Your task to perform on an android device: turn on javascript in the chrome app Image 0: 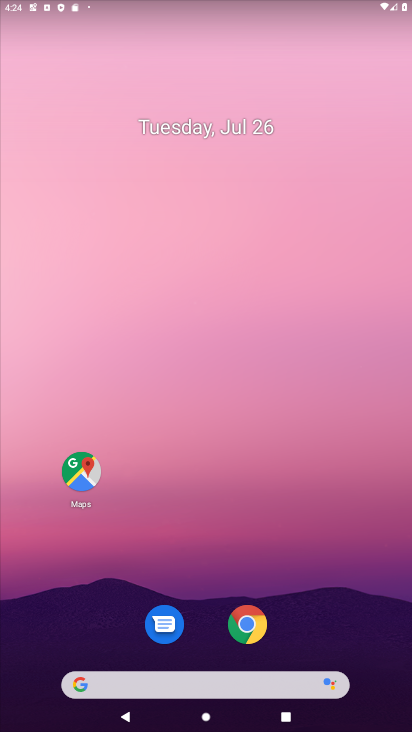
Step 0: drag from (312, 646) to (321, 18)
Your task to perform on an android device: turn on javascript in the chrome app Image 1: 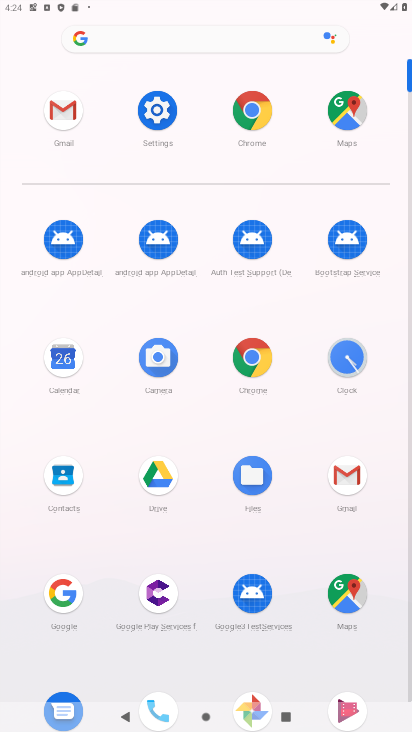
Step 1: click (246, 359)
Your task to perform on an android device: turn on javascript in the chrome app Image 2: 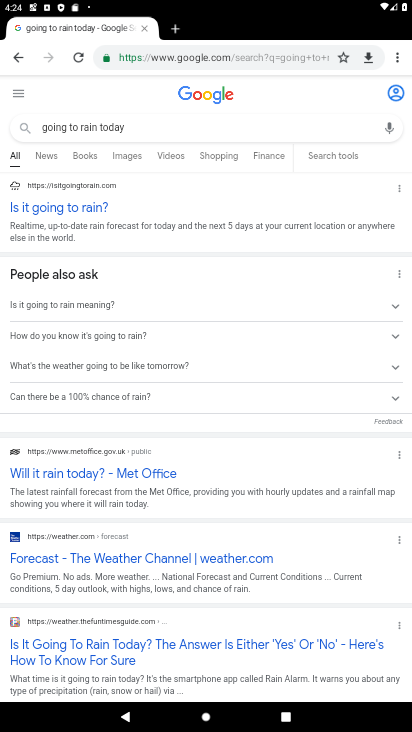
Step 2: click (392, 57)
Your task to perform on an android device: turn on javascript in the chrome app Image 3: 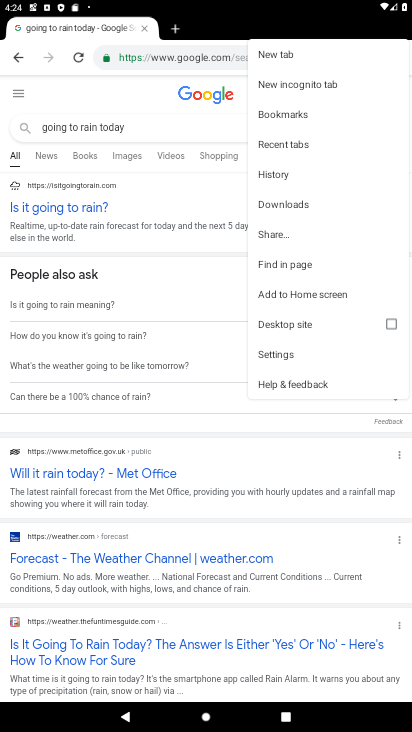
Step 3: click (294, 355)
Your task to perform on an android device: turn on javascript in the chrome app Image 4: 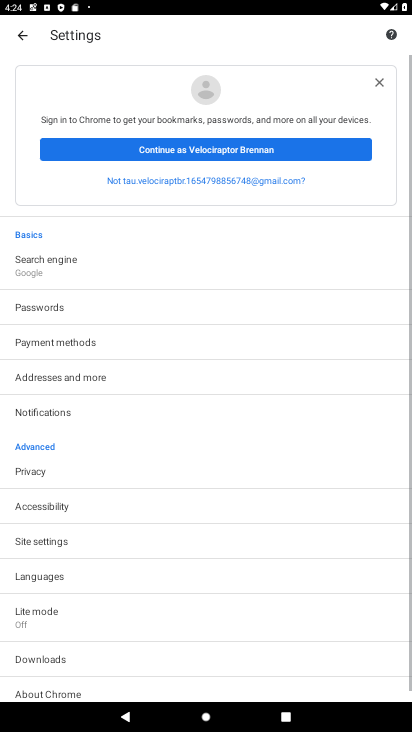
Step 4: click (58, 546)
Your task to perform on an android device: turn on javascript in the chrome app Image 5: 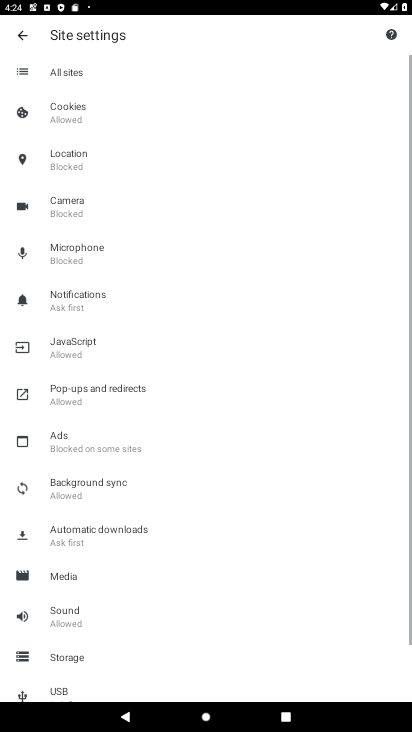
Step 5: click (96, 340)
Your task to perform on an android device: turn on javascript in the chrome app Image 6: 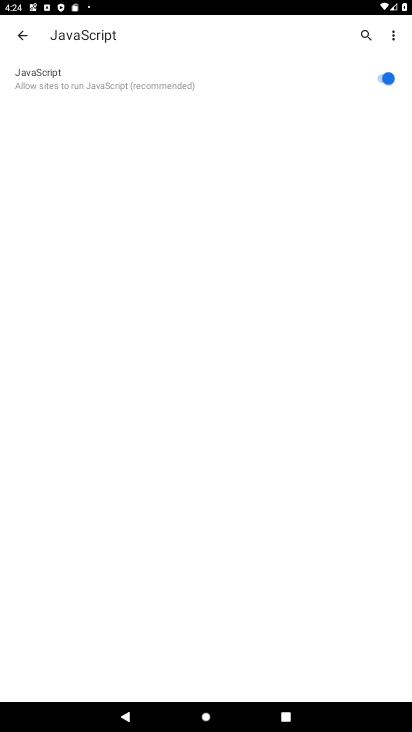
Step 6: task complete